Your task to perform on an android device: toggle notification dots Image 0: 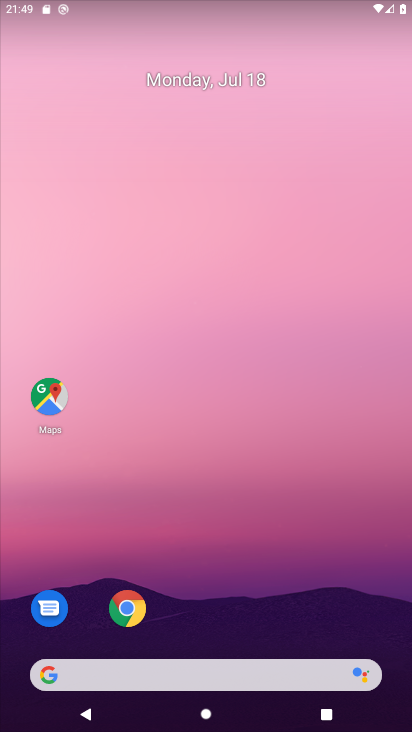
Step 0: drag from (233, 647) to (267, 115)
Your task to perform on an android device: toggle notification dots Image 1: 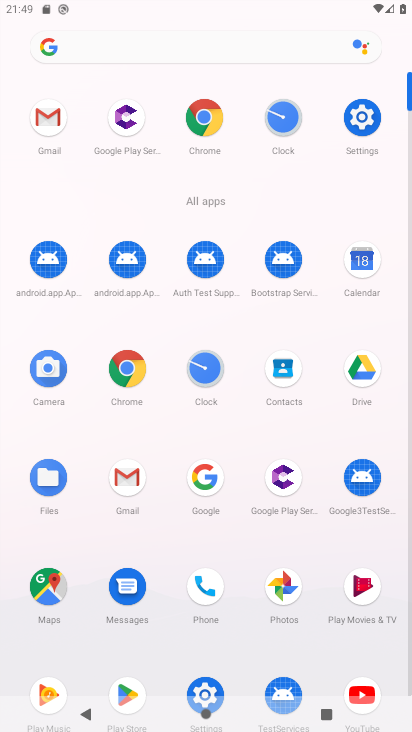
Step 1: click (201, 695)
Your task to perform on an android device: toggle notification dots Image 2: 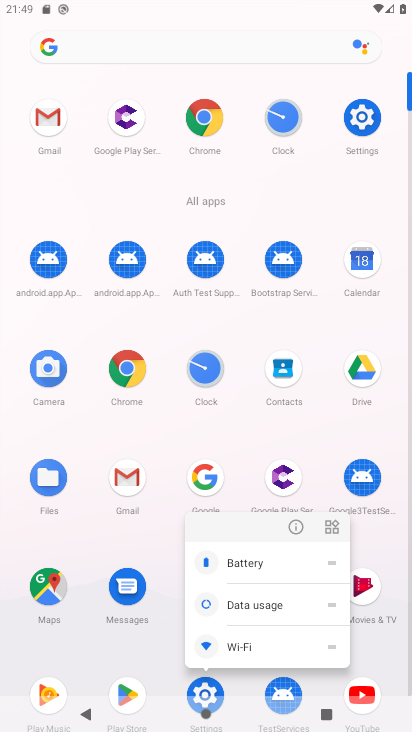
Step 2: click (201, 695)
Your task to perform on an android device: toggle notification dots Image 3: 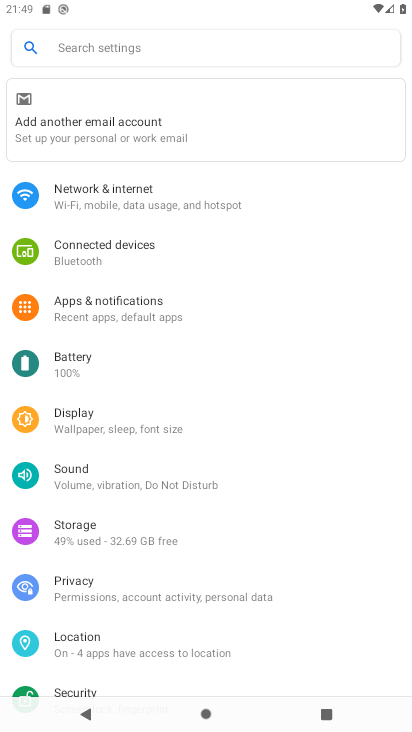
Step 3: click (181, 327)
Your task to perform on an android device: toggle notification dots Image 4: 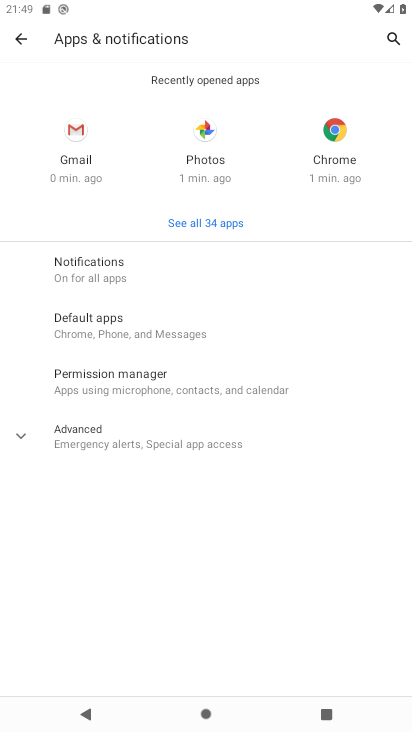
Step 4: click (103, 272)
Your task to perform on an android device: toggle notification dots Image 5: 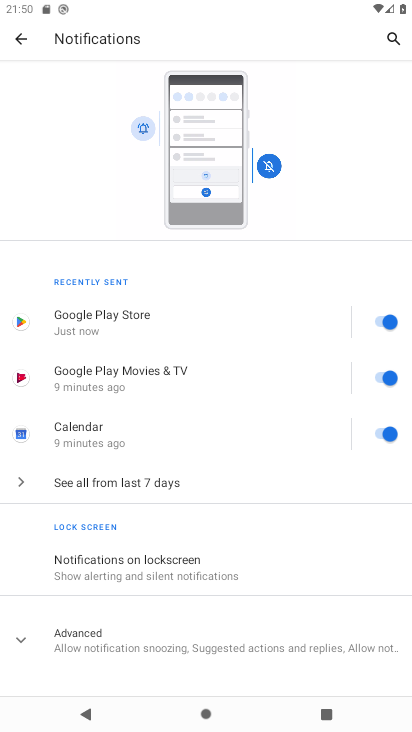
Step 5: click (170, 639)
Your task to perform on an android device: toggle notification dots Image 6: 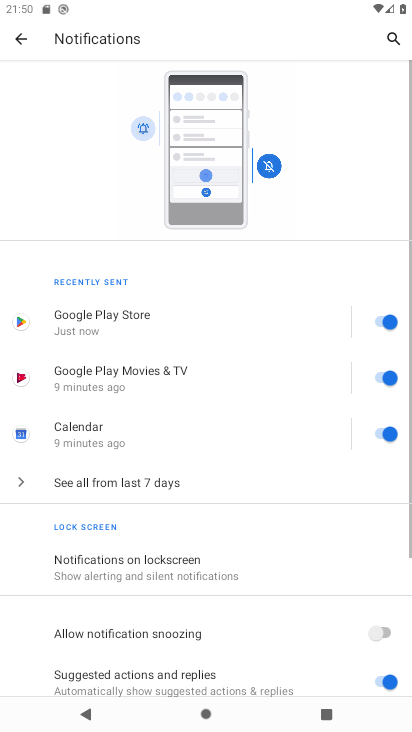
Step 6: drag from (170, 639) to (237, 220)
Your task to perform on an android device: toggle notification dots Image 7: 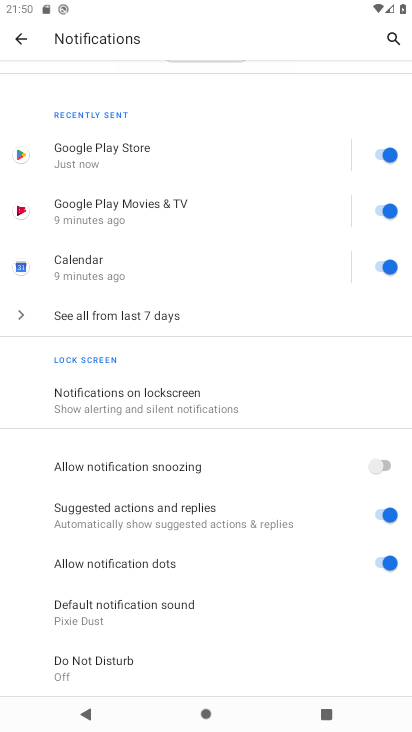
Step 7: click (388, 555)
Your task to perform on an android device: toggle notification dots Image 8: 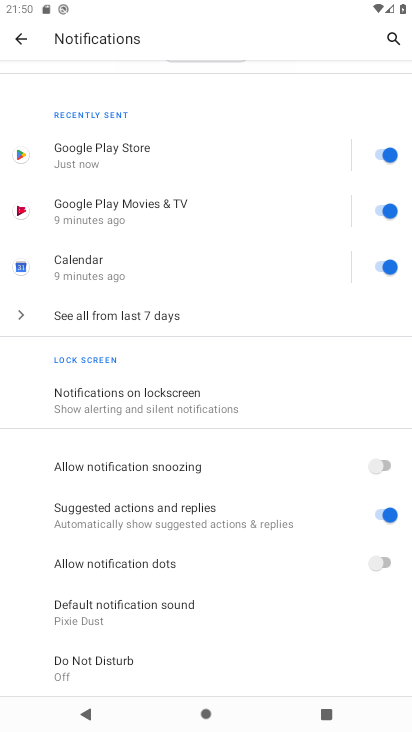
Step 8: task complete